Your task to perform on an android device: Go to Android settings Image 0: 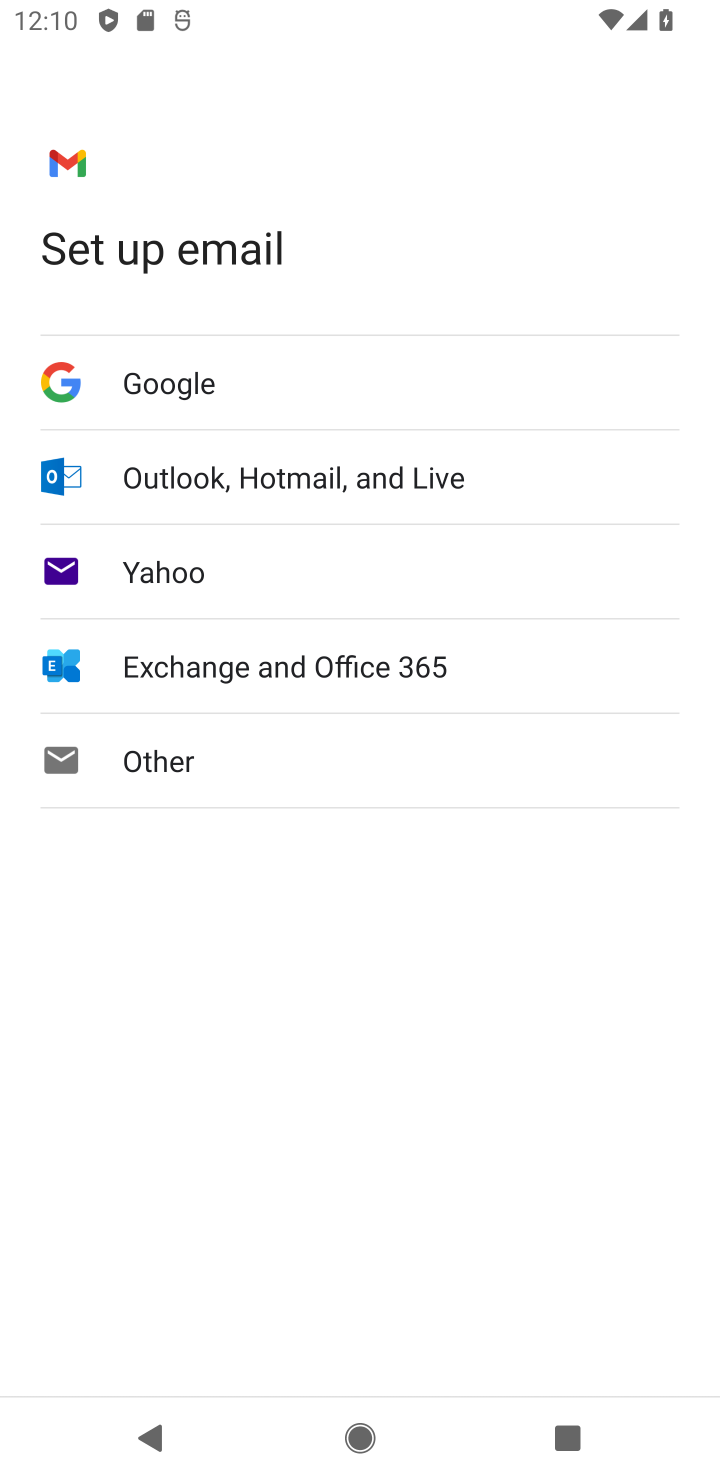
Step 0: press home button
Your task to perform on an android device: Go to Android settings Image 1: 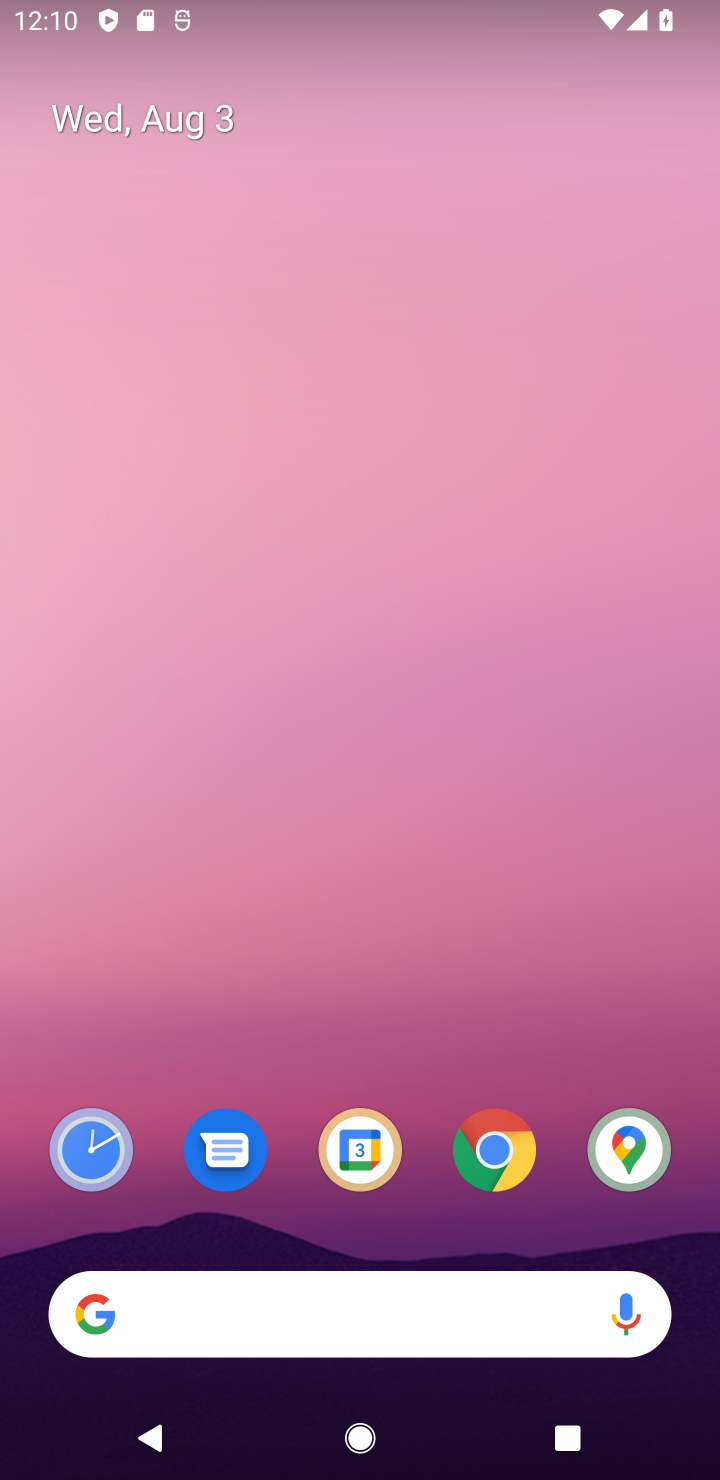
Step 1: drag from (566, 1086) to (557, 344)
Your task to perform on an android device: Go to Android settings Image 2: 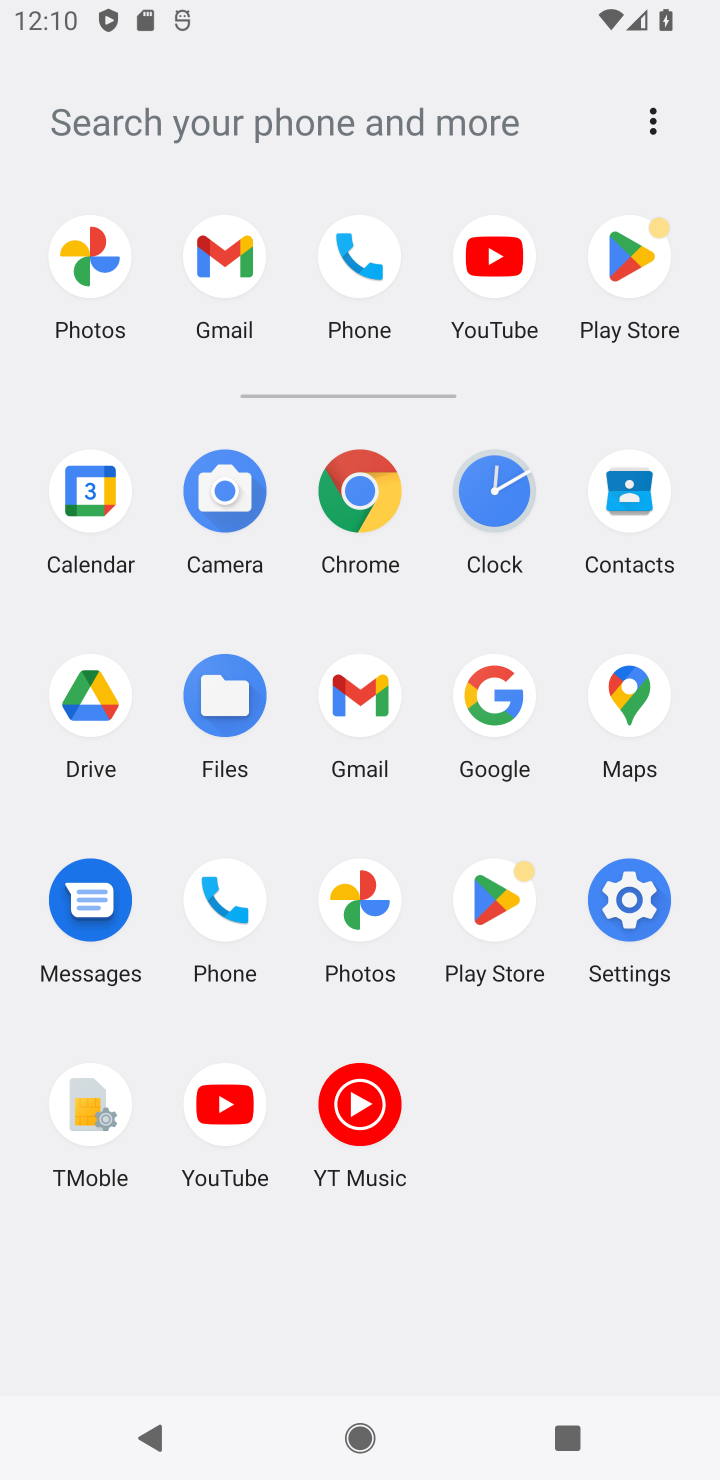
Step 2: click (624, 879)
Your task to perform on an android device: Go to Android settings Image 3: 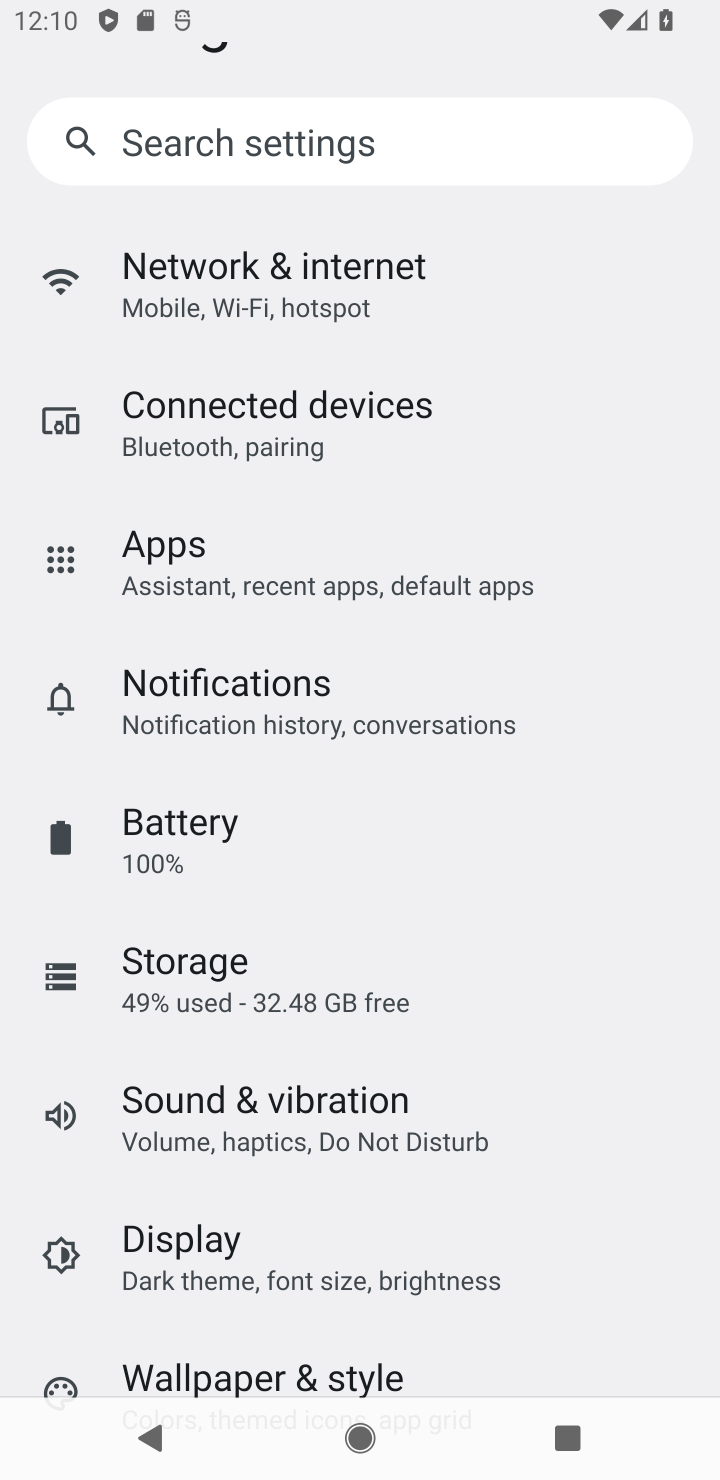
Step 3: drag from (636, 1065) to (638, 884)
Your task to perform on an android device: Go to Android settings Image 4: 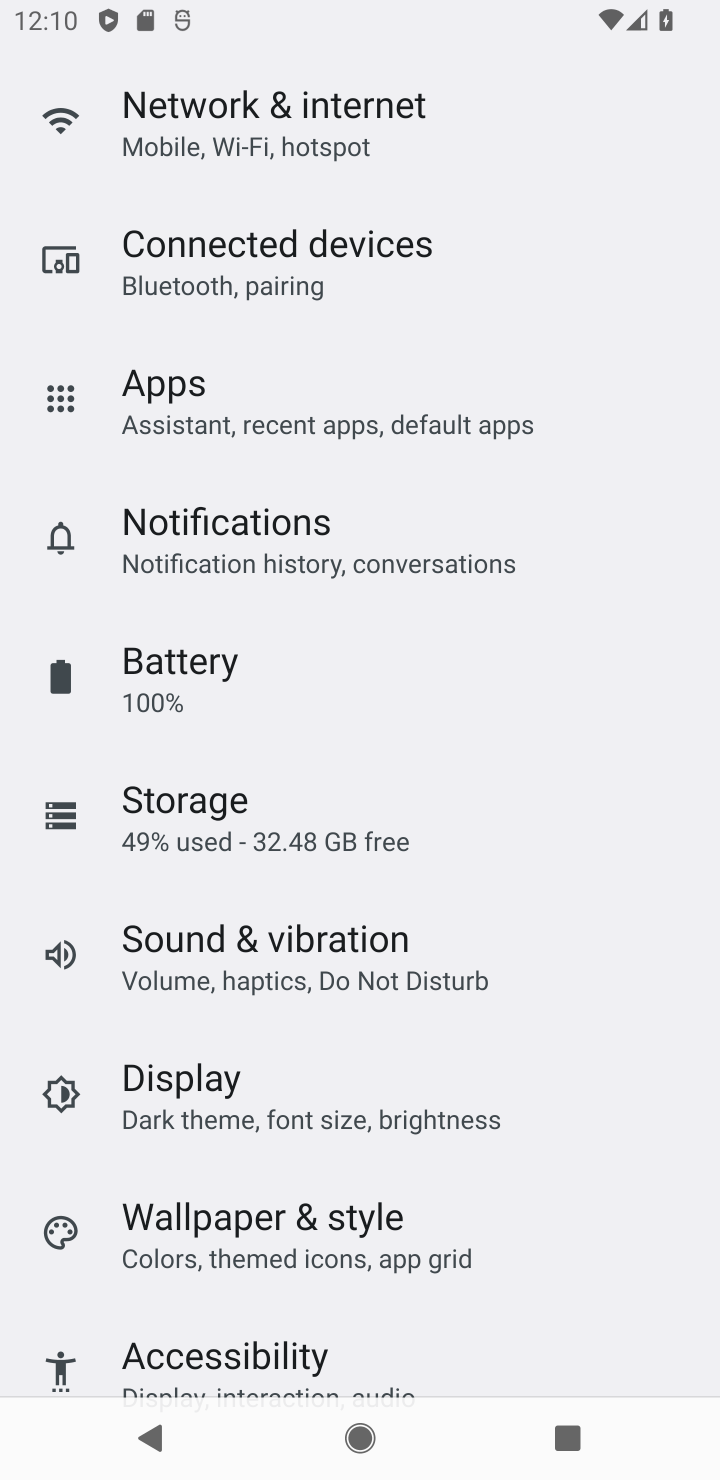
Step 4: drag from (593, 1072) to (599, 830)
Your task to perform on an android device: Go to Android settings Image 5: 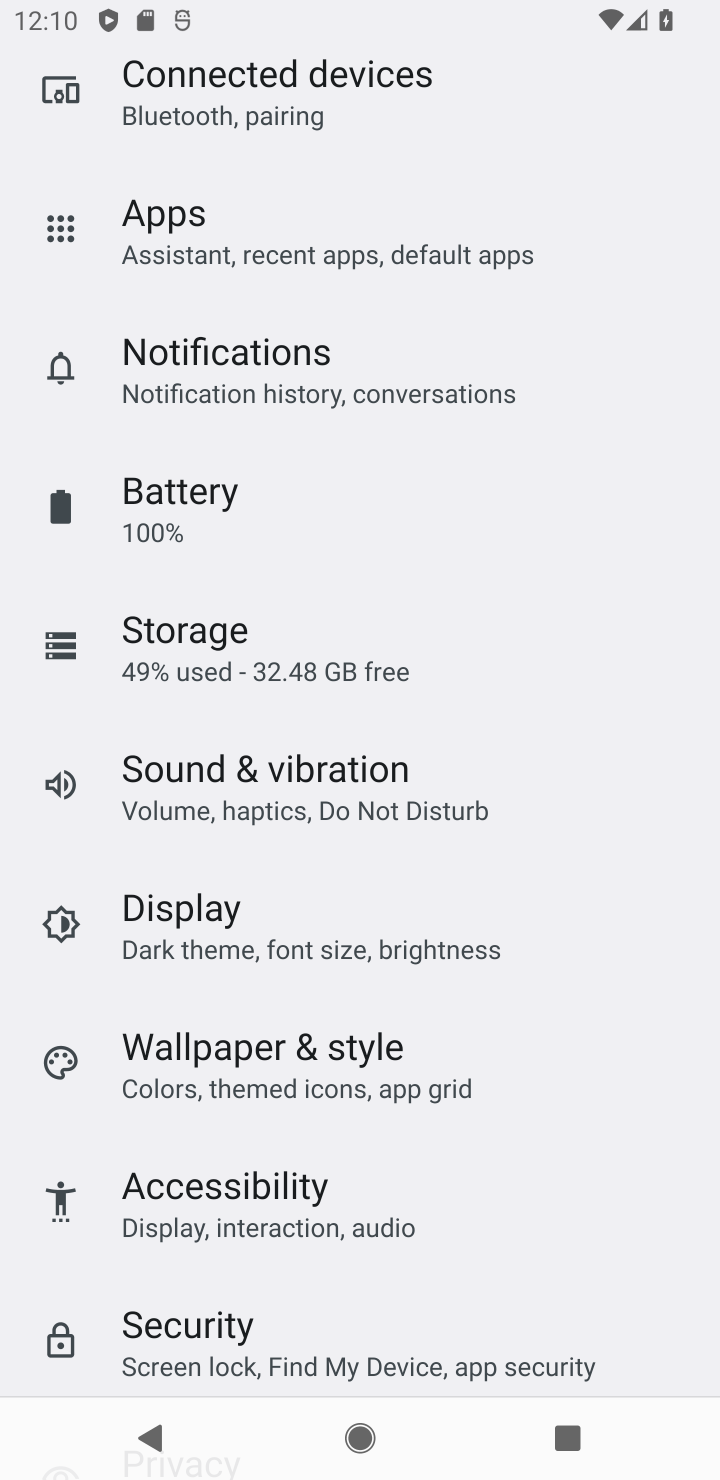
Step 5: drag from (561, 1144) to (575, 842)
Your task to perform on an android device: Go to Android settings Image 6: 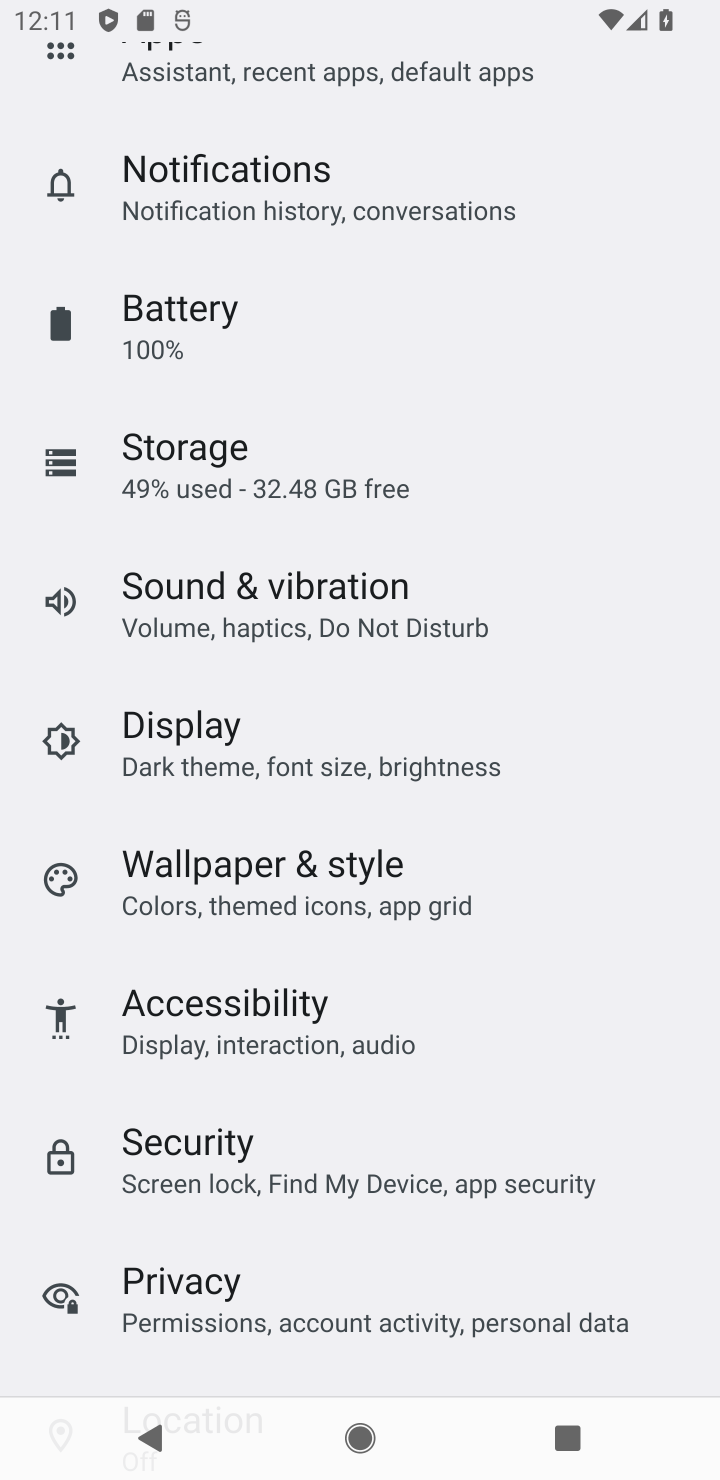
Step 6: drag from (574, 1037) to (598, 796)
Your task to perform on an android device: Go to Android settings Image 7: 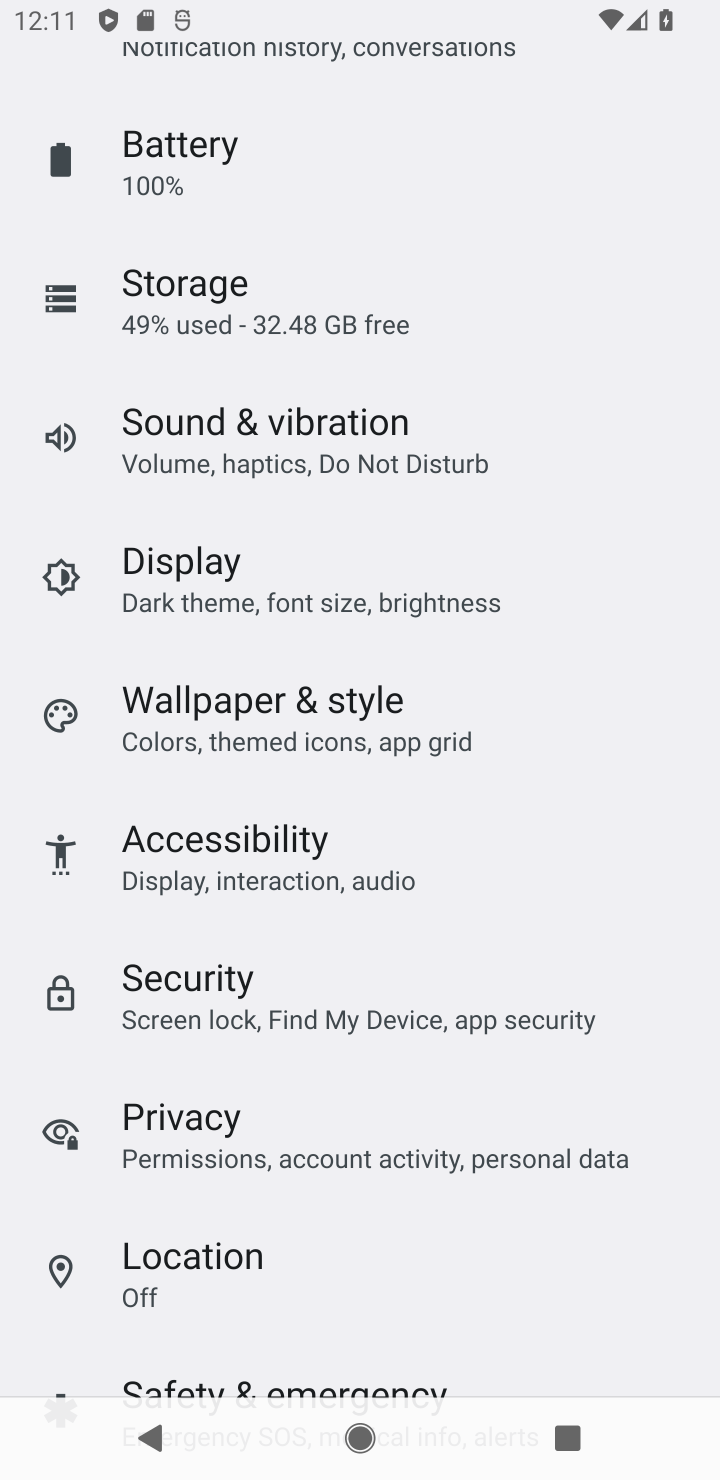
Step 7: drag from (573, 1160) to (586, 837)
Your task to perform on an android device: Go to Android settings Image 8: 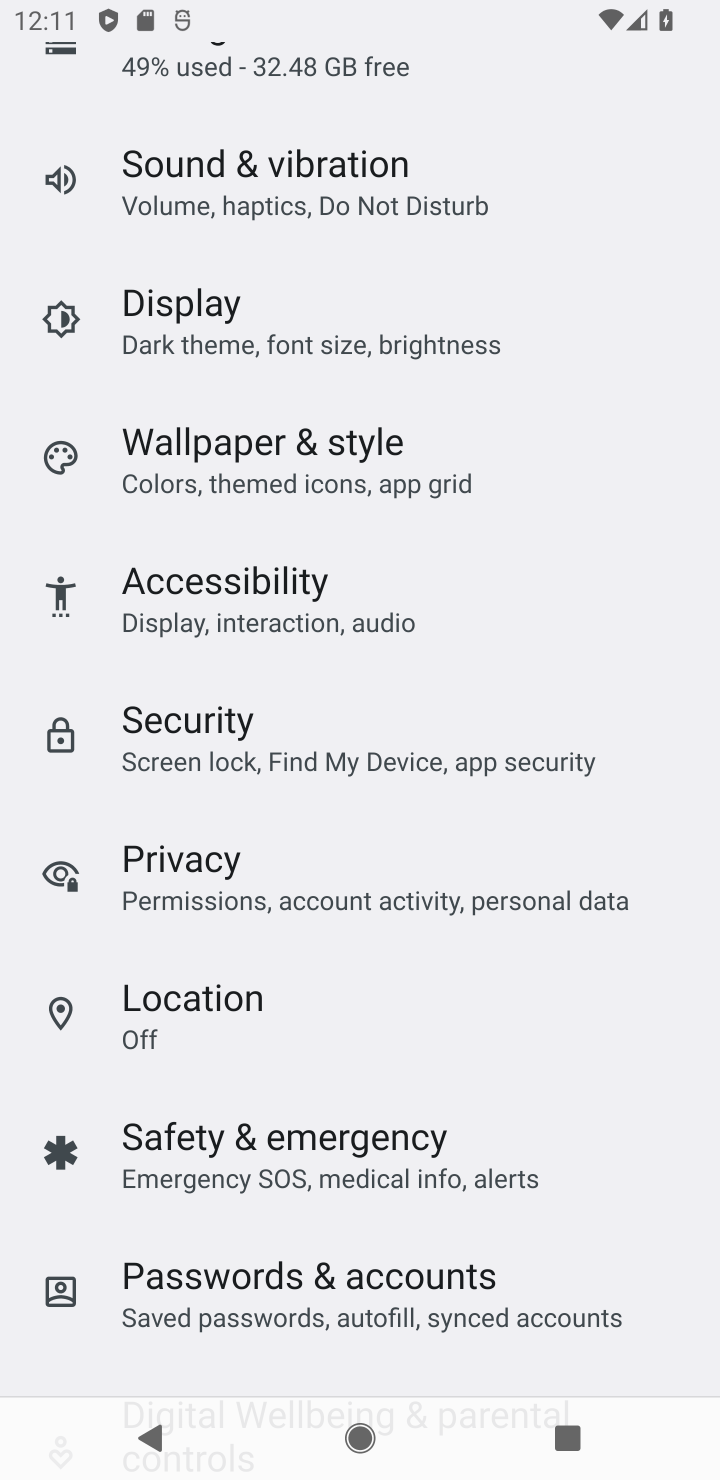
Step 8: drag from (582, 1224) to (586, 884)
Your task to perform on an android device: Go to Android settings Image 9: 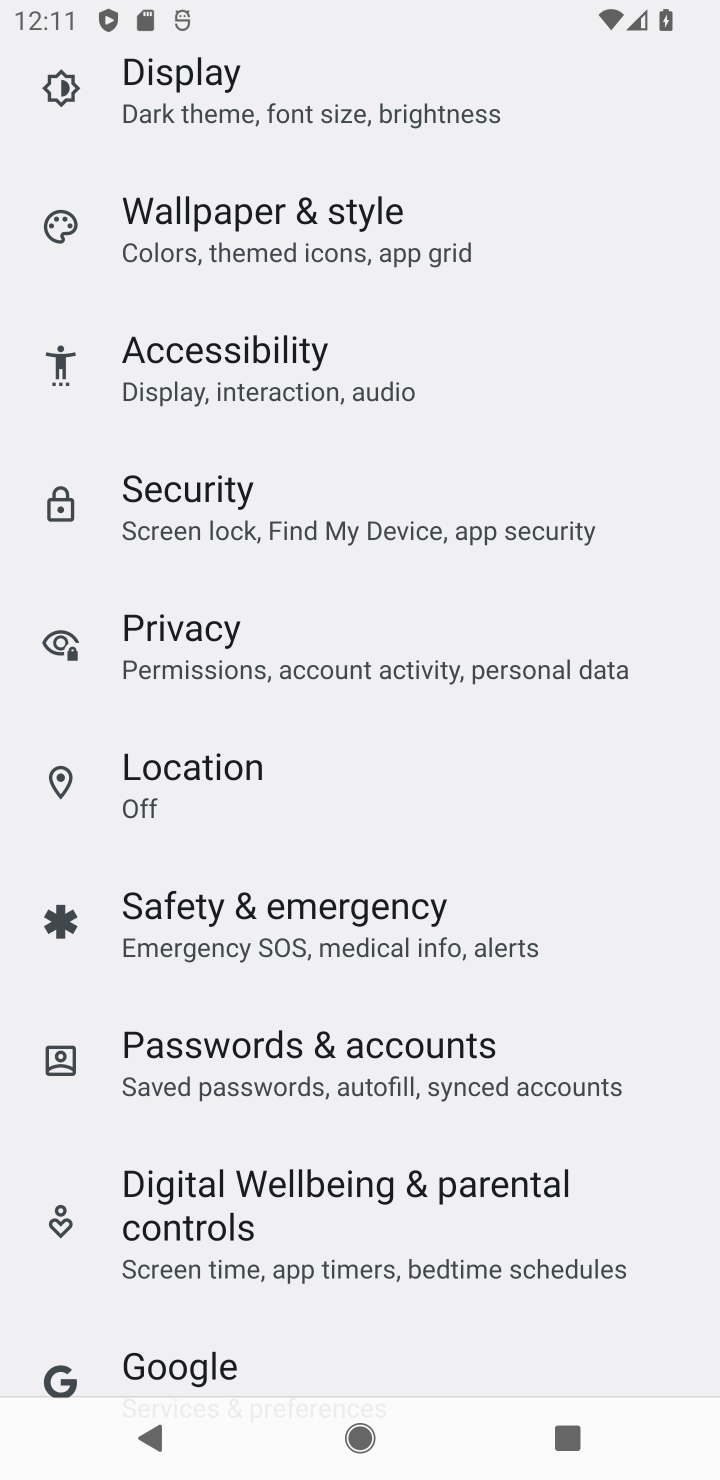
Step 9: drag from (584, 1308) to (595, 813)
Your task to perform on an android device: Go to Android settings Image 10: 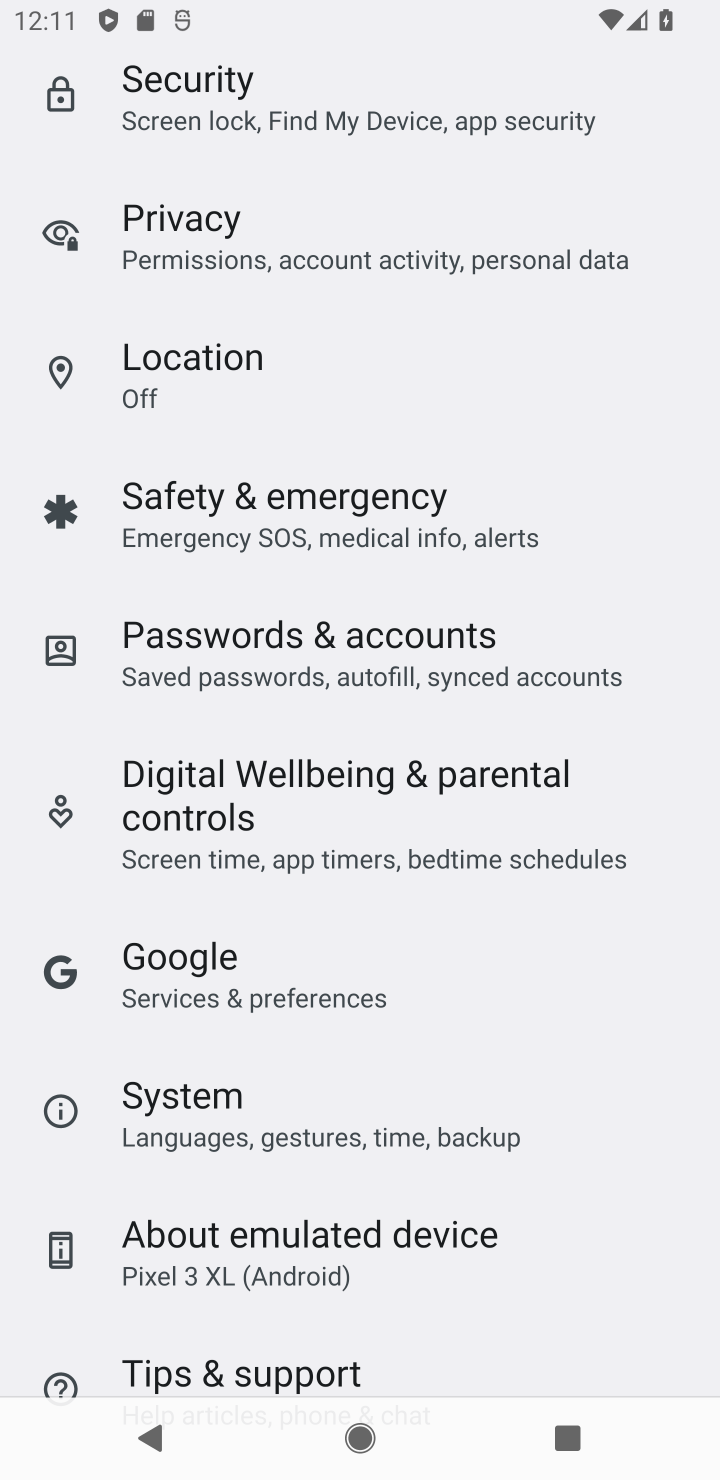
Step 10: click (518, 1117)
Your task to perform on an android device: Go to Android settings Image 11: 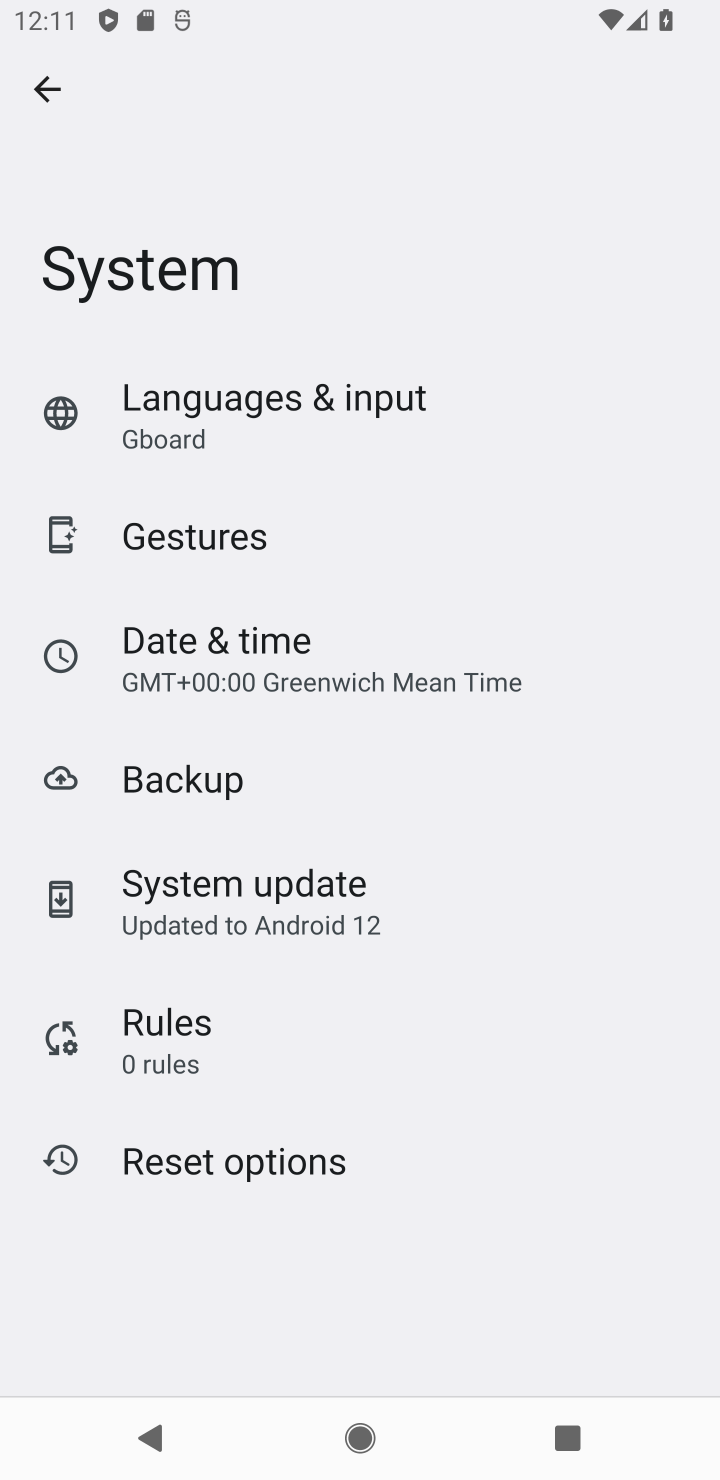
Step 11: task complete